Your task to perform on an android device: What is the recent news? Image 0: 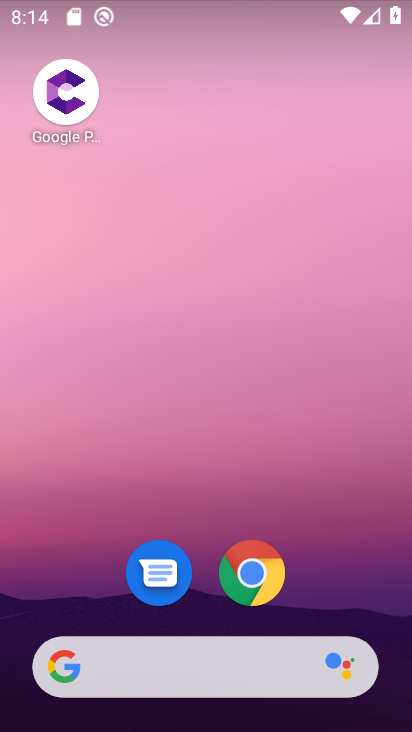
Step 0: drag from (342, 388) to (342, 33)
Your task to perform on an android device: What is the recent news? Image 1: 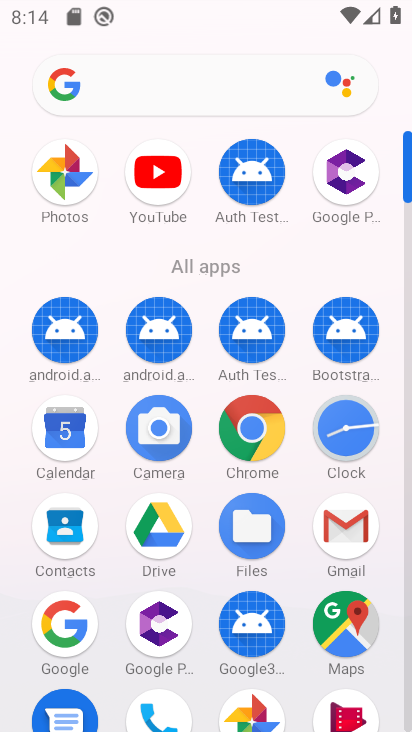
Step 1: click (59, 615)
Your task to perform on an android device: What is the recent news? Image 2: 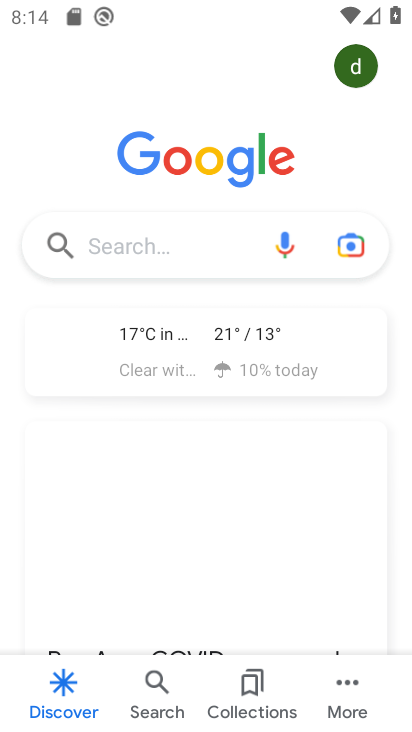
Step 2: click (148, 255)
Your task to perform on an android device: What is the recent news? Image 3: 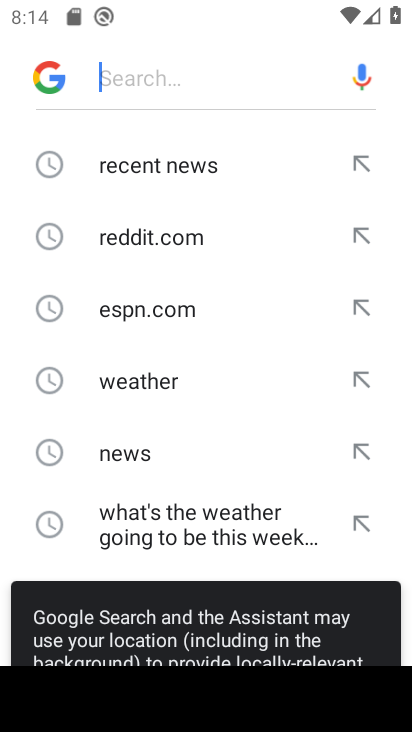
Step 3: click (188, 173)
Your task to perform on an android device: What is the recent news? Image 4: 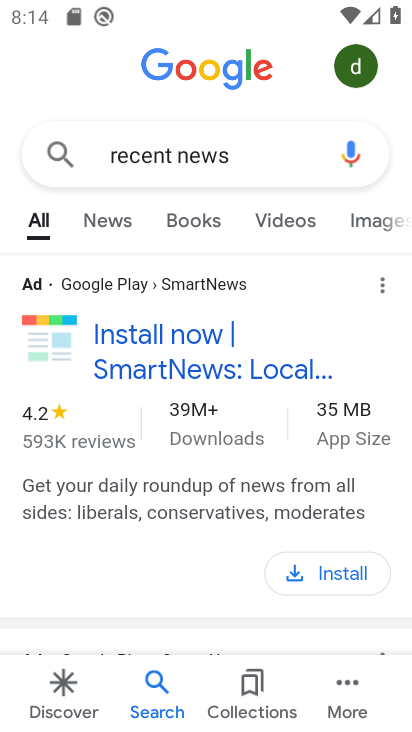
Step 4: task complete